Your task to perform on an android device: open a new tab in the chrome app Image 0: 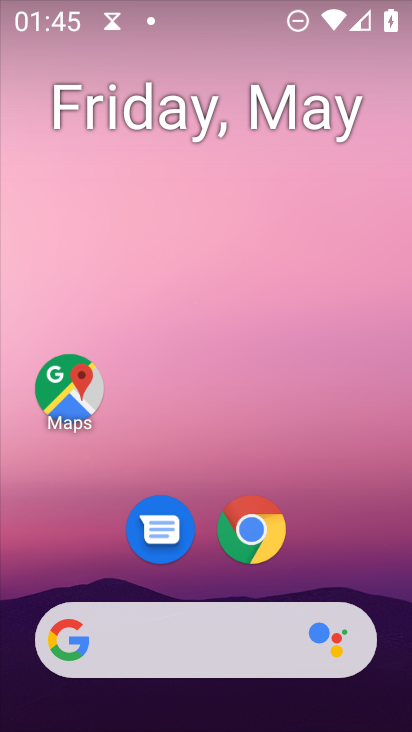
Step 0: drag from (334, 554) to (326, 282)
Your task to perform on an android device: open a new tab in the chrome app Image 1: 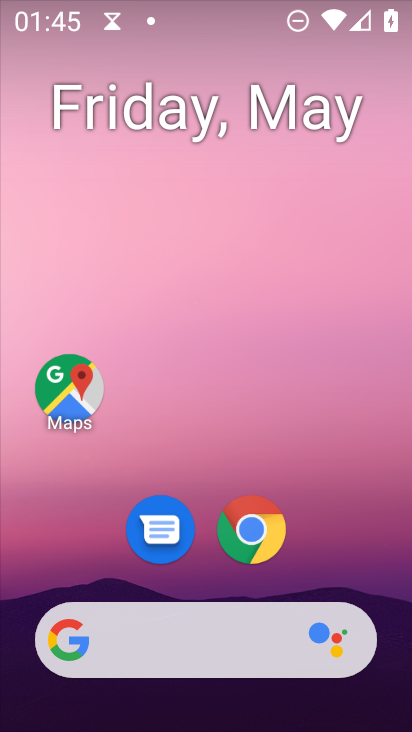
Step 1: drag from (331, 511) to (325, 179)
Your task to perform on an android device: open a new tab in the chrome app Image 2: 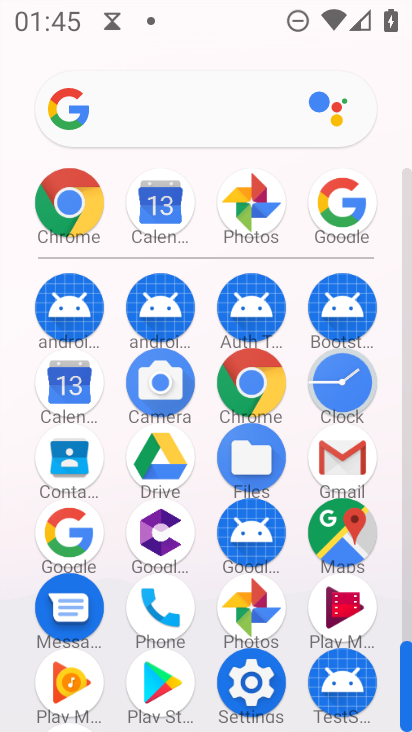
Step 2: click (77, 208)
Your task to perform on an android device: open a new tab in the chrome app Image 3: 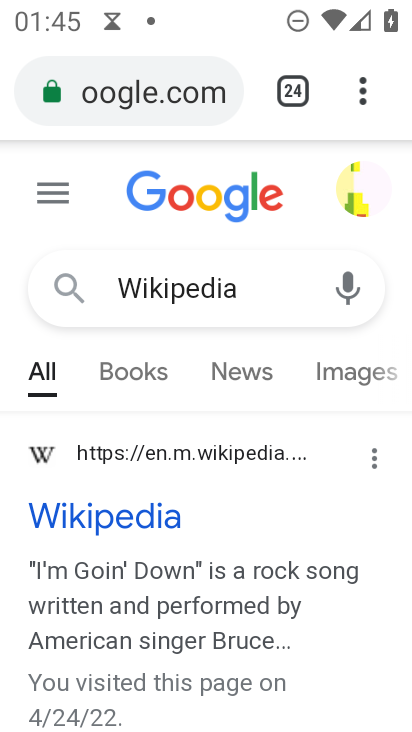
Step 3: click (351, 92)
Your task to perform on an android device: open a new tab in the chrome app Image 4: 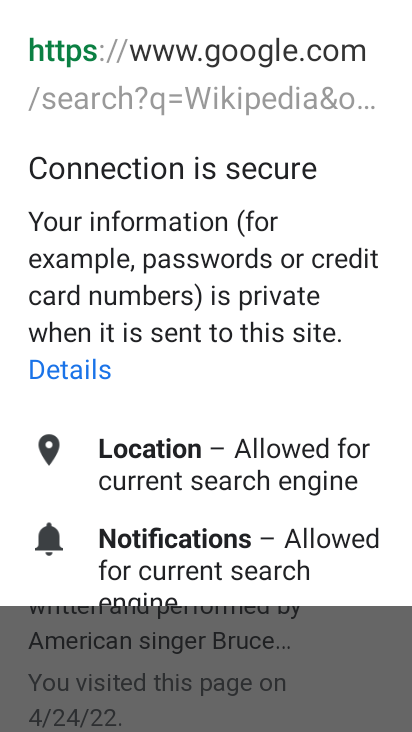
Step 4: press back button
Your task to perform on an android device: open a new tab in the chrome app Image 5: 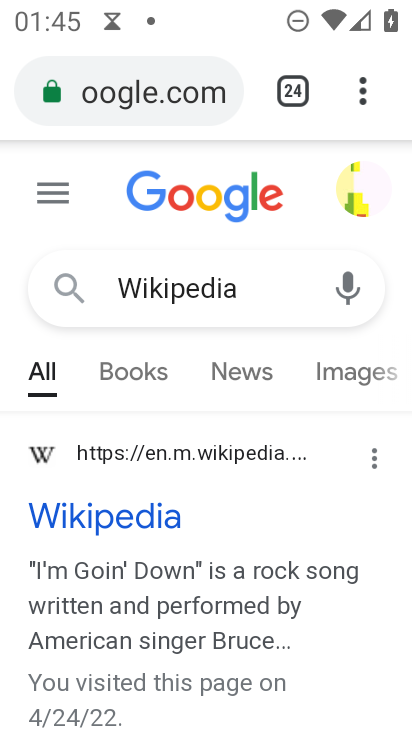
Step 5: click (346, 85)
Your task to perform on an android device: open a new tab in the chrome app Image 6: 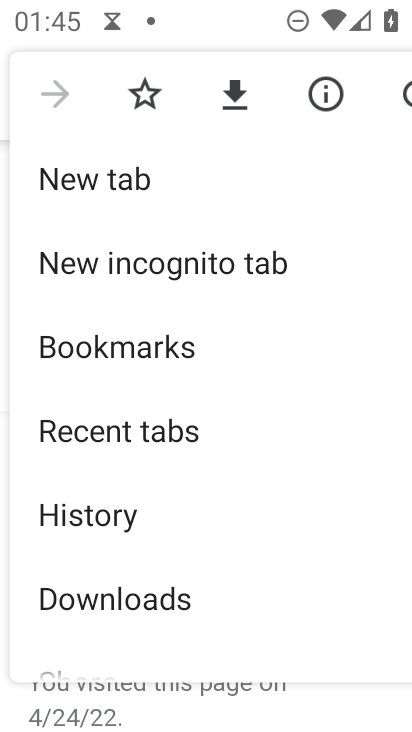
Step 6: click (93, 184)
Your task to perform on an android device: open a new tab in the chrome app Image 7: 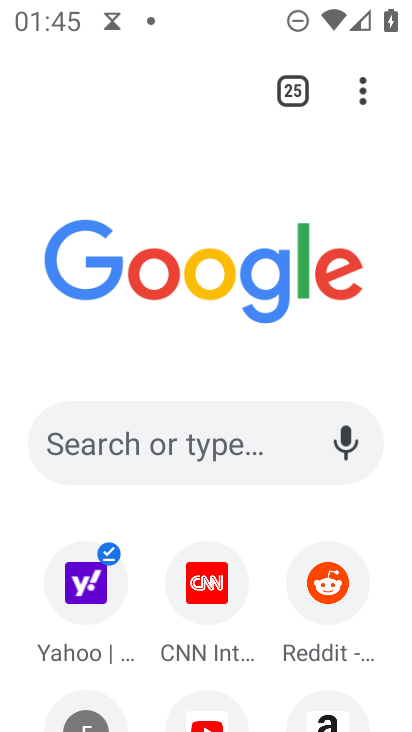
Step 7: task complete